Your task to perform on an android device: Turn off the flashlight Image 0: 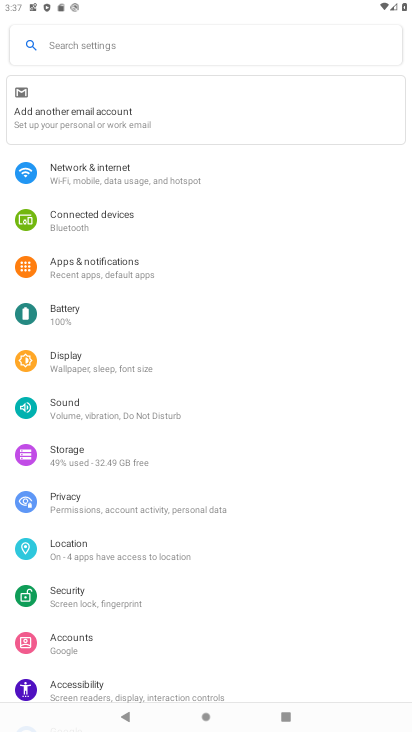
Step 0: drag from (180, 6) to (174, 510)
Your task to perform on an android device: Turn off the flashlight Image 1: 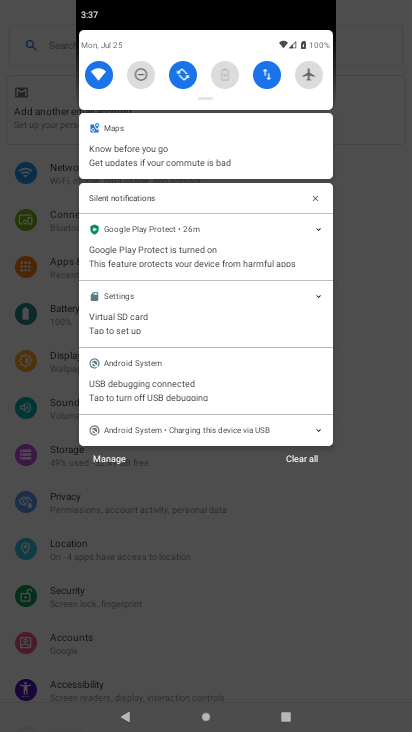
Step 1: task complete